Your task to perform on an android device: turn off location Image 0: 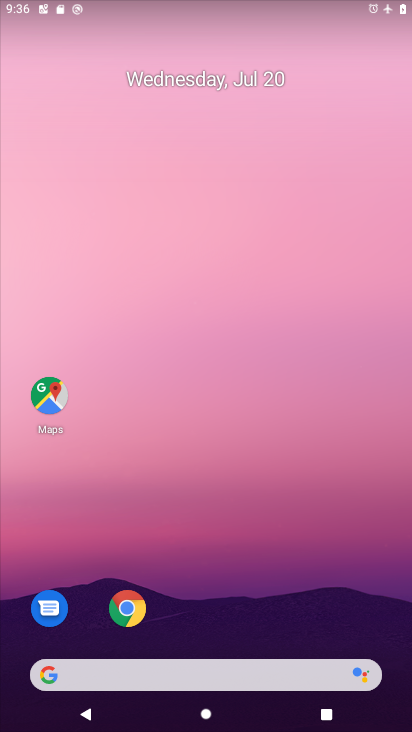
Step 0: drag from (241, 594) to (259, 357)
Your task to perform on an android device: turn off location Image 1: 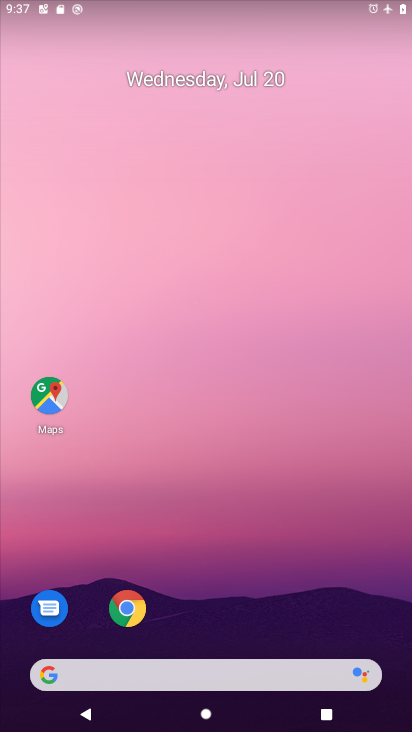
Step 1: drag from (214, 655) to (194, 262)
Your task to perform on an android device: turn off location Image 2: 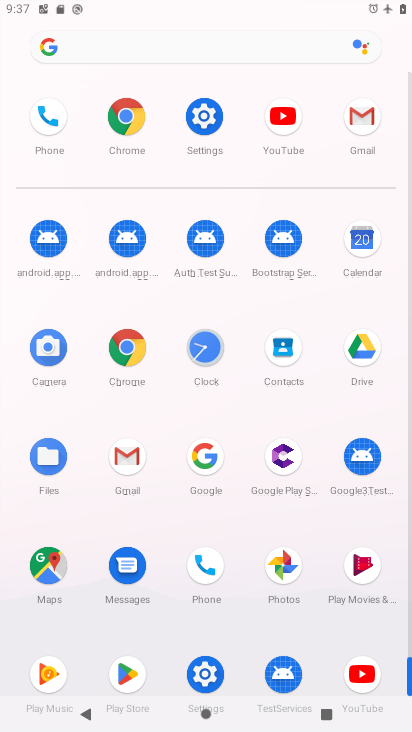
Step 2: click (211, 126)
Your task to perform on an android device: turn off location Image 3: 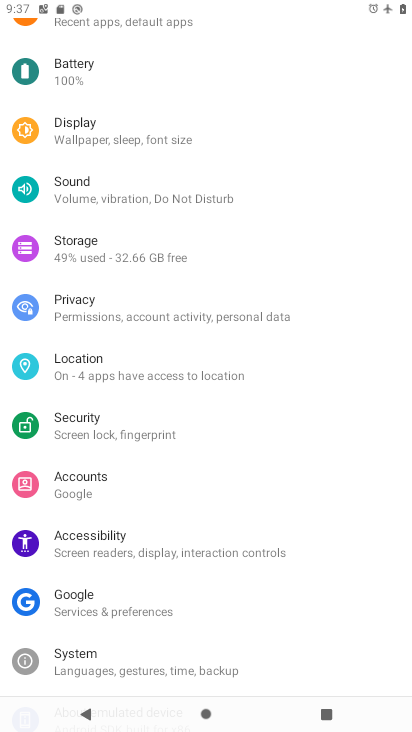
Step 3: click (156, 351)
Your task to perform on an android device: turn off location Image 4: 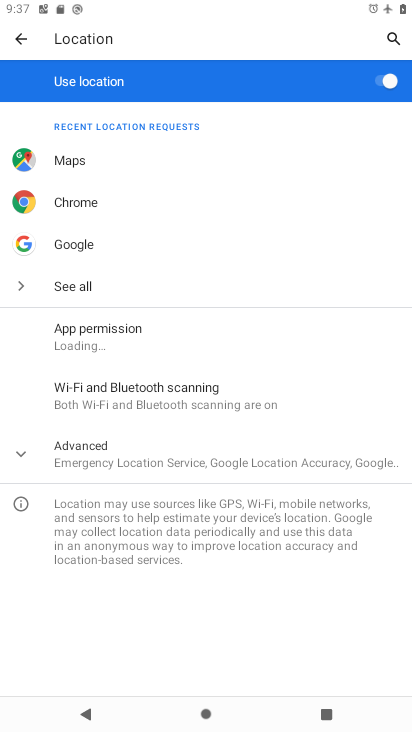
Step 4: click (389, 82)
Your task to perform on an android device: turn off location Image 5: 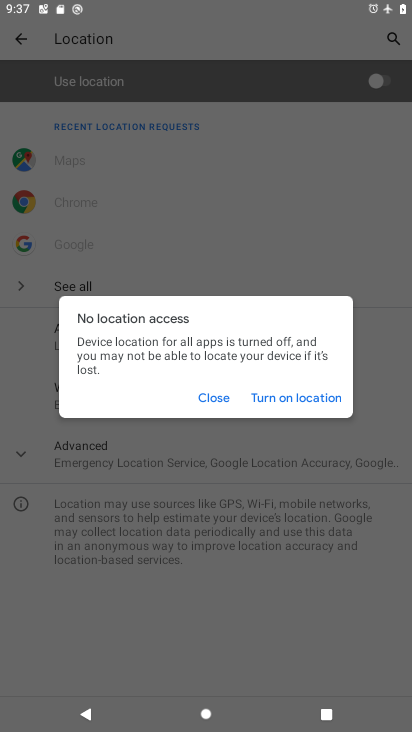
Step 5: click (204, 247)
Your task to perform on an android device: turn off location Image 6: 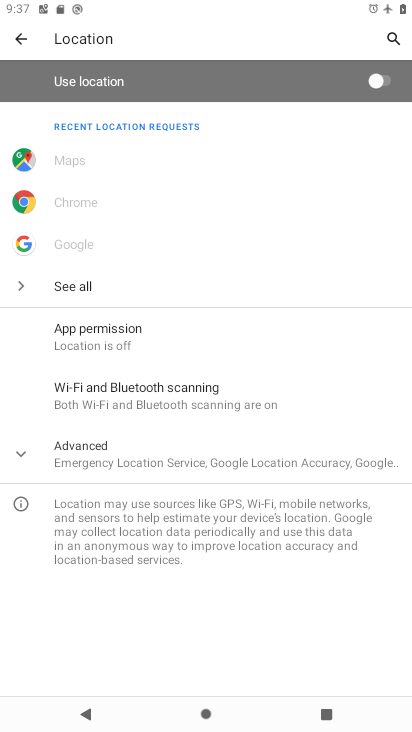
Step 6: task complete